Your task to perform on an android device: delete the emails in spam in the gmail app Image 0: 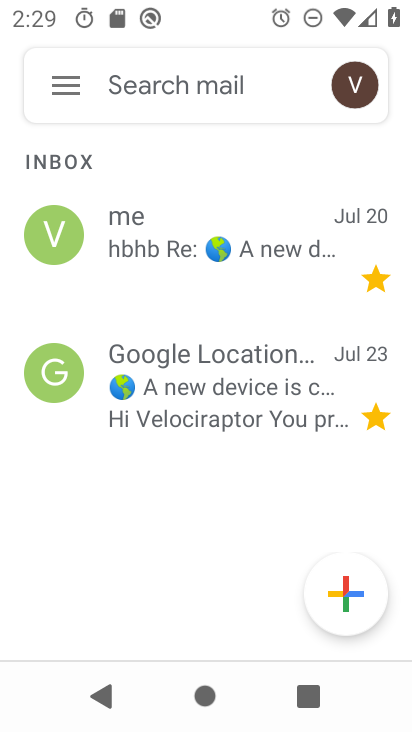
Step 0: click (56, 87)
Your task to perform on an android device: delete the emails in spam in the gmail app Image 1: 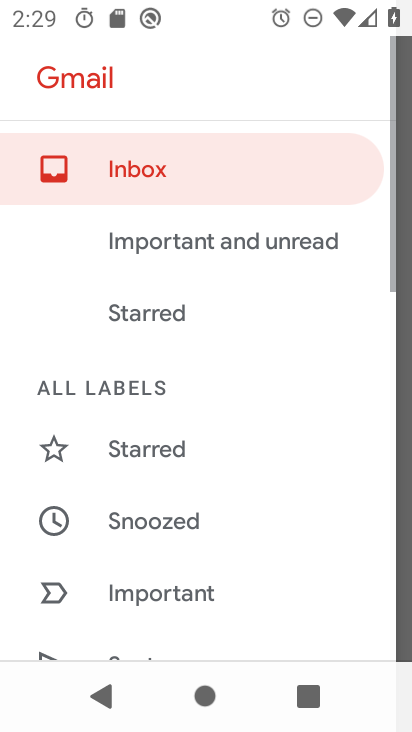
Step 1: drag from (204, 601) to (276, 65)
Your task to perform on an android device: delete the emails in spam in the gmail app Image 2: 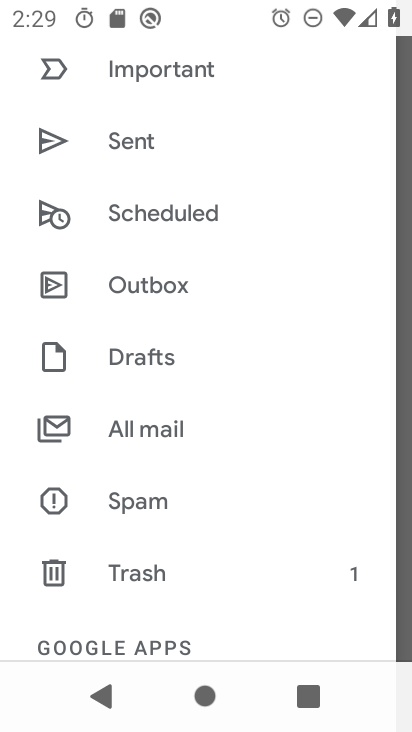
Step 2: click (153, 504)
Your task to perform on an android device: delete the emails in spam in the gmail app Image 3: 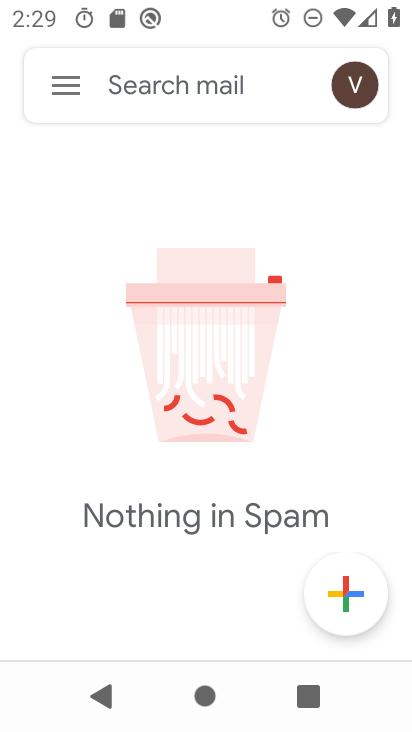
Step 3: task complete